Your task to perform on an android device: Go to Maps Image 0: 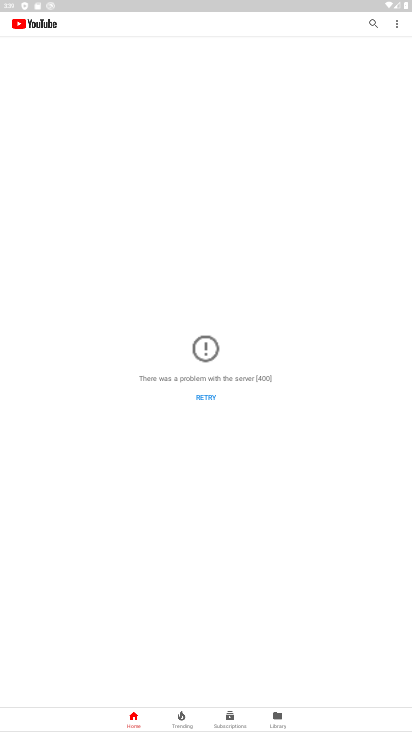
Step 0: press home button
Your task to perform on an android device: Go to Maps Image 1: 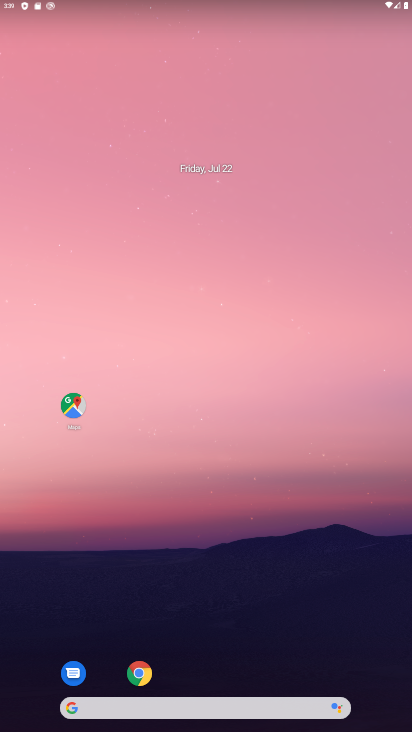
Step 1: click (70, 414)
Your task to perform on an android device: Go to Maps Image 2: 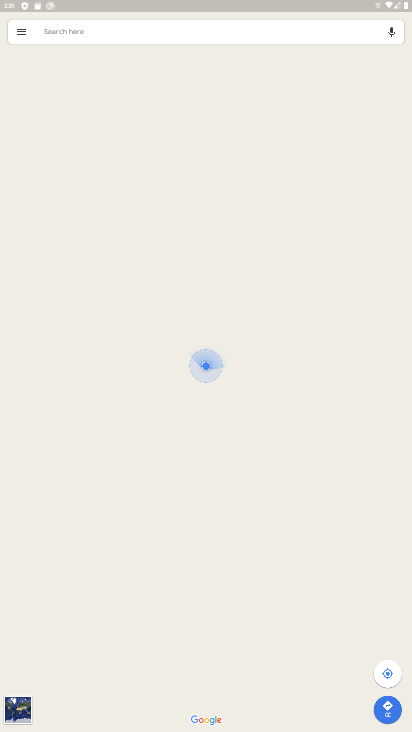
Step 2: task complete